Your task to perform on an android device: Open Google Image 0: 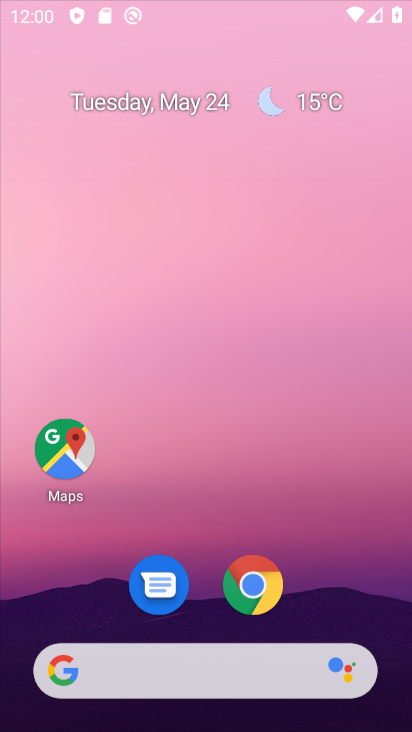
Step 0: click (278, 346)
Your task to perform on an android device: Open Google Image 1: 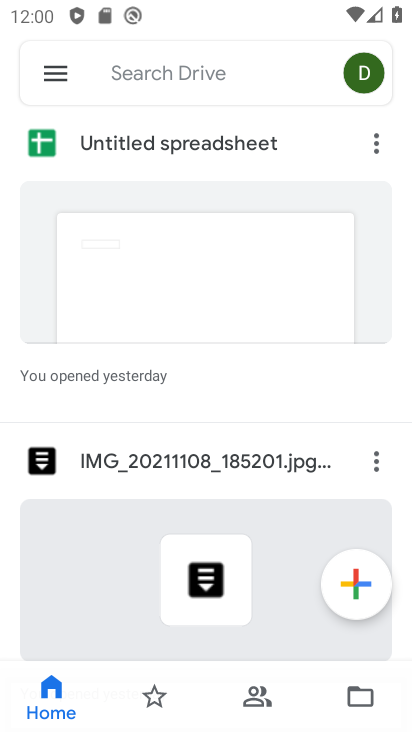
Step 1: press home button
Your task to perform on an android device: Open Google Image 2: 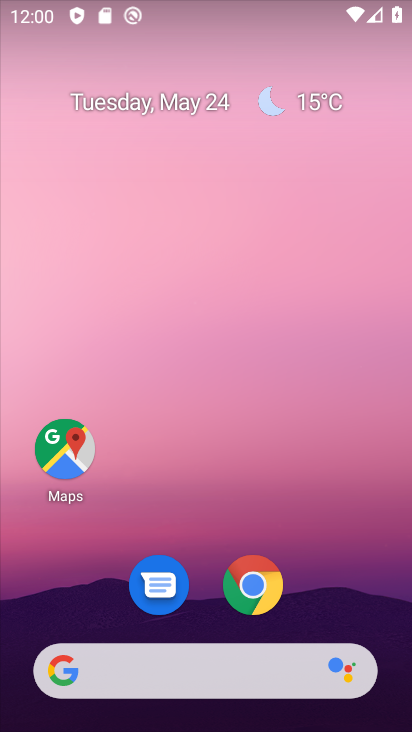
Step 2: click (190, 678)
Your task to perform on an android device: Open Google Image 3: 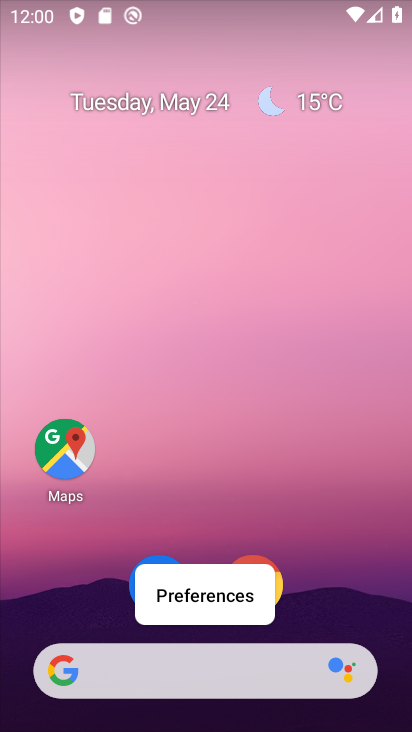
Step 3: click (188, 662)
Your task to perform on an android device: Open Google Image 4: 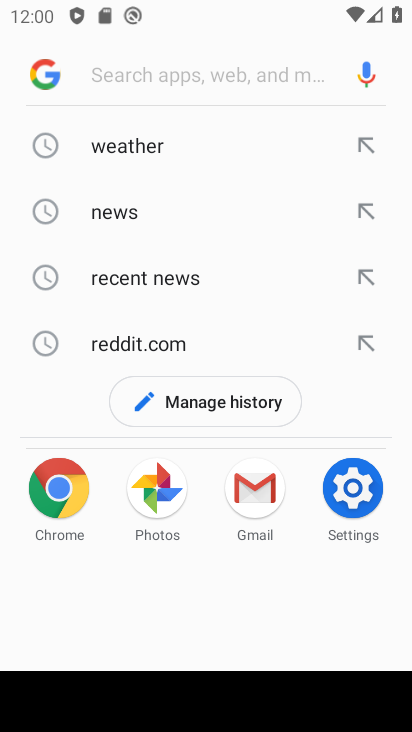
Step 4: click (50, 72)
Your task to perform on an android device: Open Google Image 5: 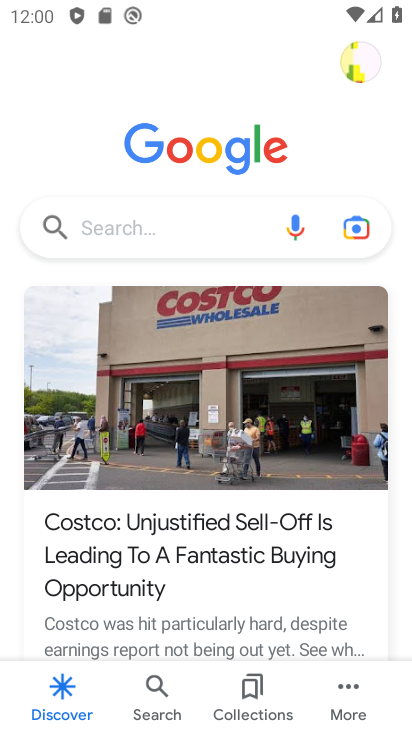
Step 5: task complete